Your task to perform on an android device: turn notification dots off Image 0: 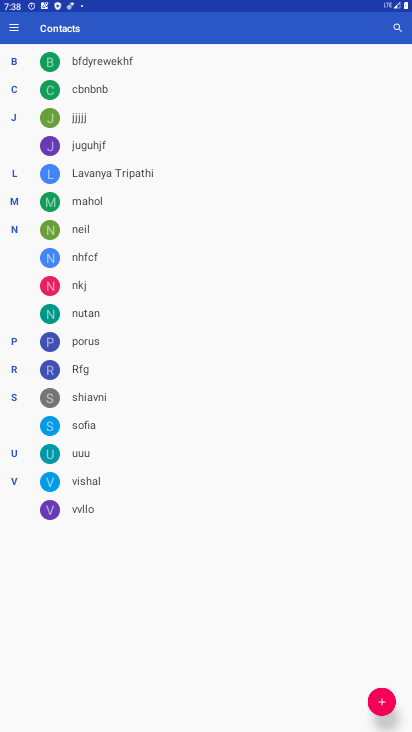
Step 0: press home button
Your task to perform on an android device: turn notification dots off Image 1: 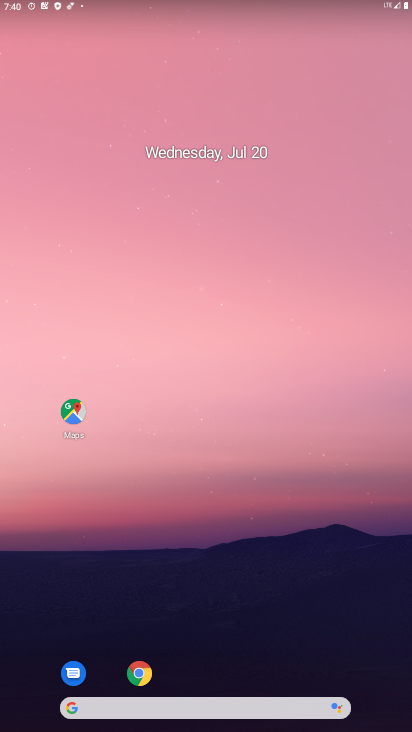
Step 1: drag from (276, 364) to (186, 30)
Your task to perform on an android device: turn notification dots off Image 2: 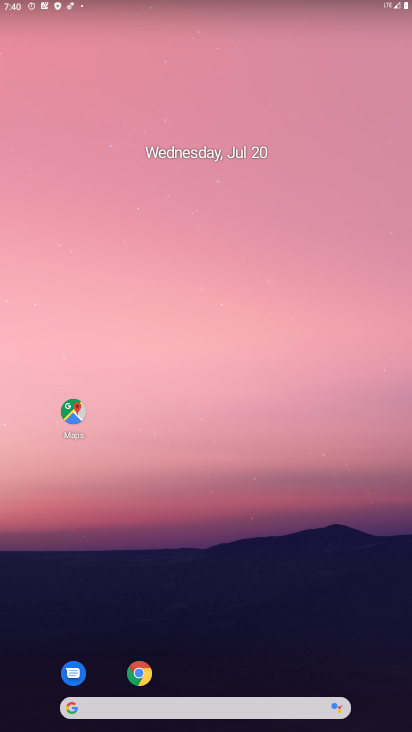
Step 2: drag from (399, 627) to (229, 0)
Your task to perform on an android device: turn notification dots off Image 3: 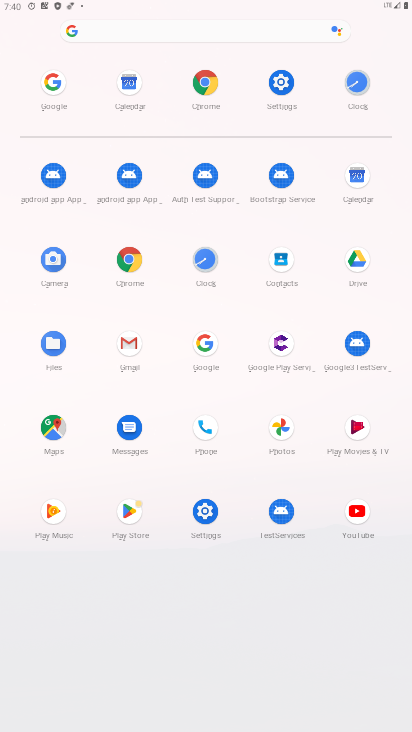
Step 3: click (287, 89)
Your task to perform on an android device: turn notification dots off Image 4: 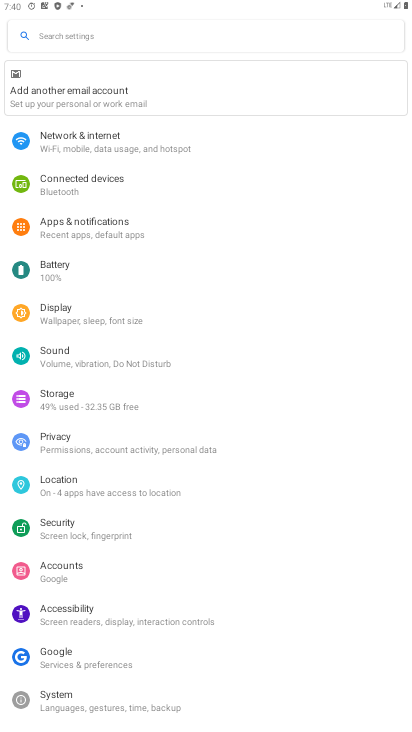
Step 4: click (93, 232)
Your task to perform on an android device: turn notification dots off Image 5: 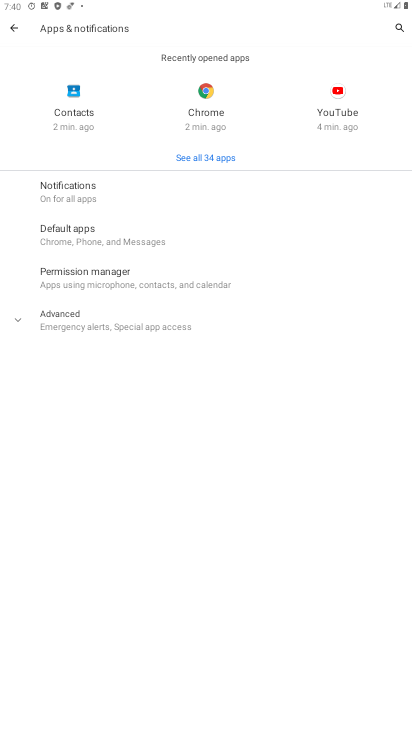
Step 5: click (103, 197)
Your task to perform on an android device: turn notification dots off Image 6: 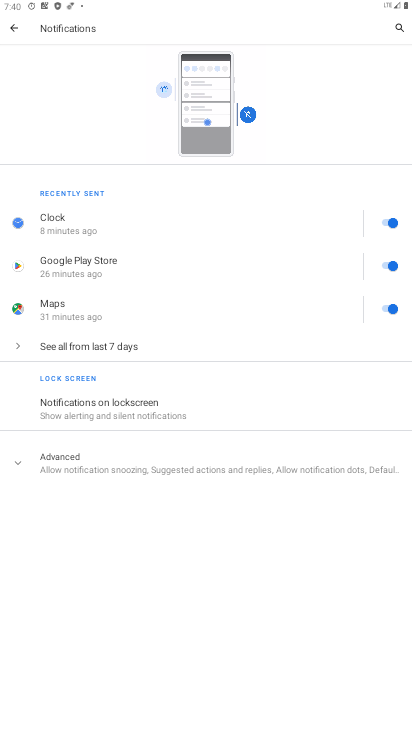
Step 6: click (72, 461)
Your task to perform on an android device: turn notification dots off Image 7: 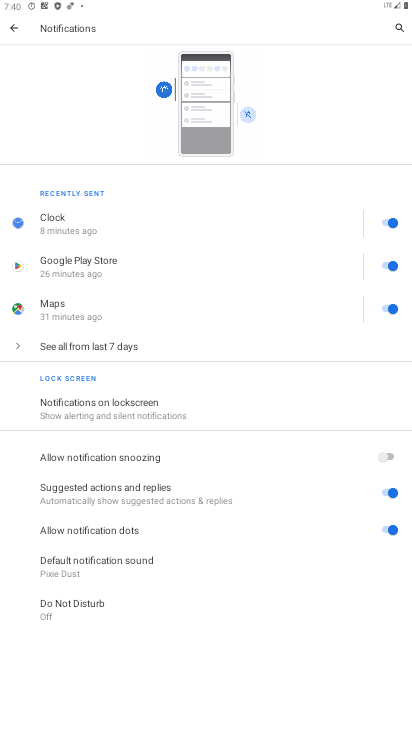
Step 7: click (145, 534)
Your task to perform on an android device: turn notification dots off Image 8: 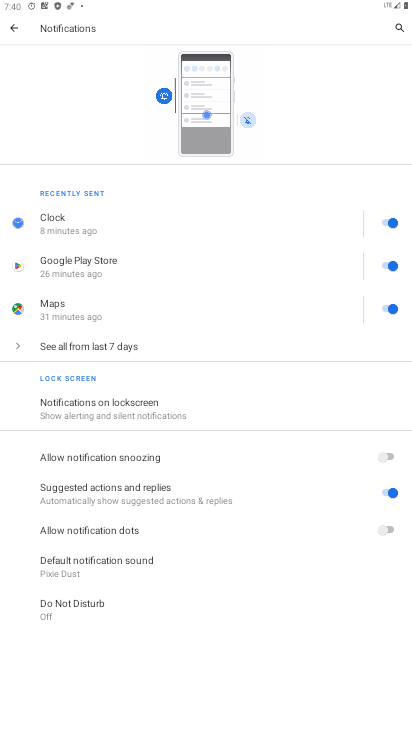
Step 8: task complete